Your task to perform on an android device: Look up the best gaming headphones on Best Buy Image 0: 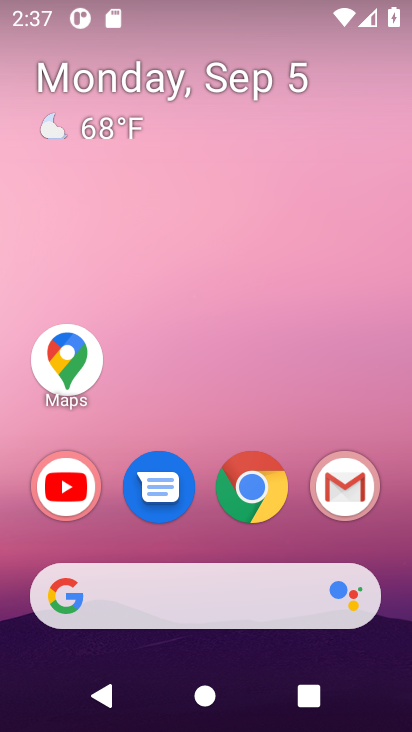
Step 0: click (229, 526)
Your task to perform on an android device: Look up the best gaming headphones on Best Buy Image 1: 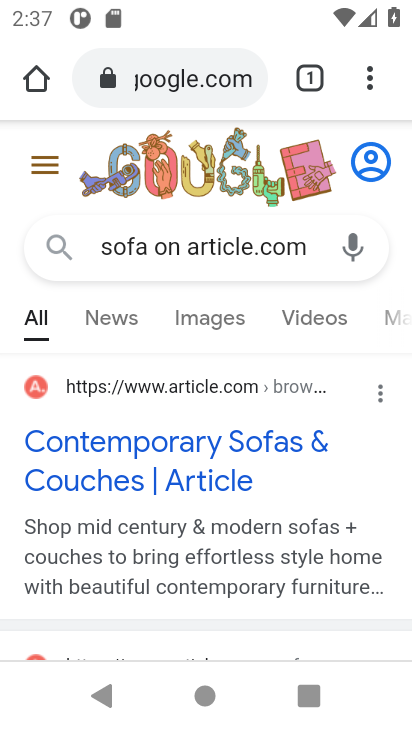
Step 1: click (159, 80)
Your task to perform on an android device: Look up the best gaming headphones on Best Buy Image 2: 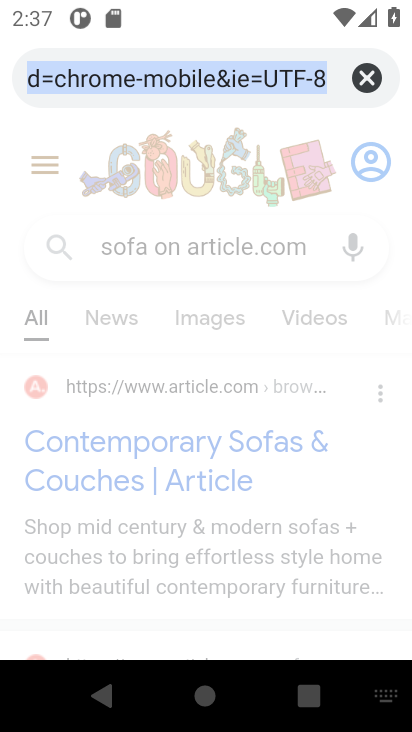
Step 2: click (363, 76)
Your task to perform on an android device: Look up the best gaming headphones on Best Buy Image 3: 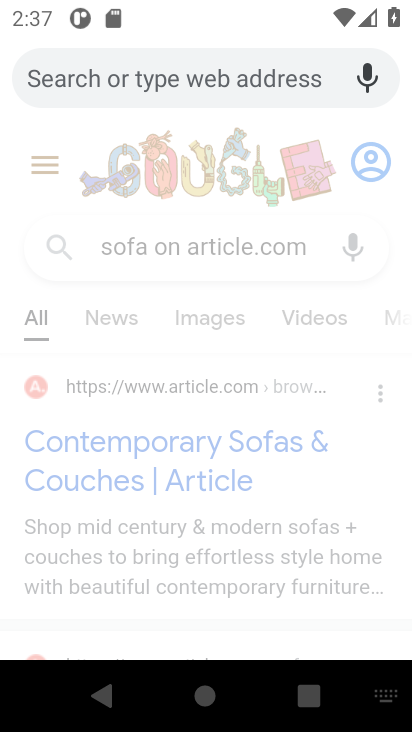
Step 3: type "the best gaming headphones on Best Buy"
Your task to perform on an android device: Look up the best gaming headphones on Best Buy Image 4: 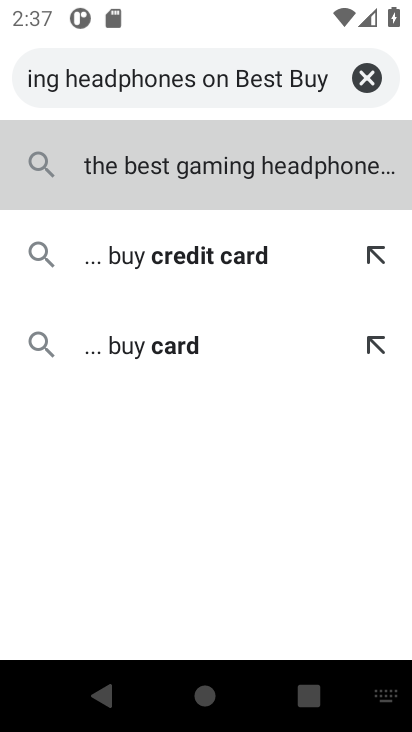
Step 4: click (224, 155)
Your task to perform on an android device: Look up the best gaming headphones on Best Buy Image 5: 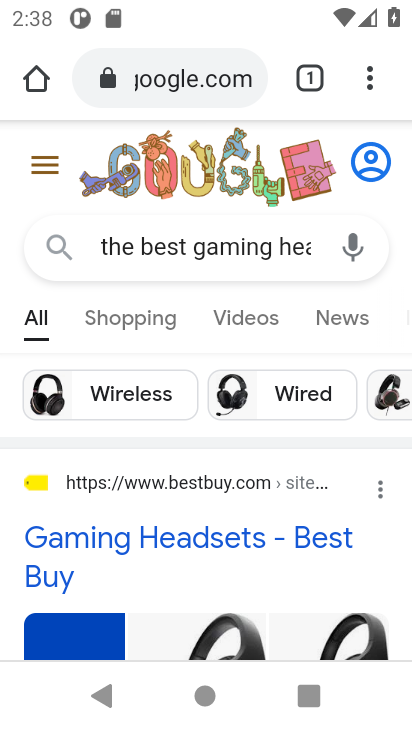
Step 5: task complete